Your task to perform on an android device: Go to display settings Image 0: 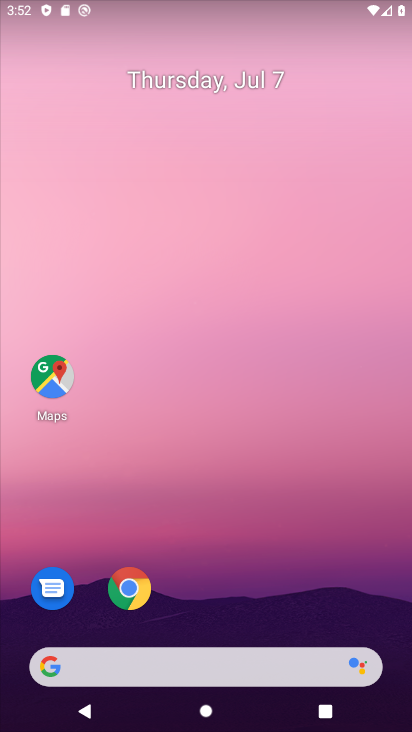
Step 0: drag from (270, 675) to (187, 101)
Your task to perform on an android device: Go to display settings Image 1: 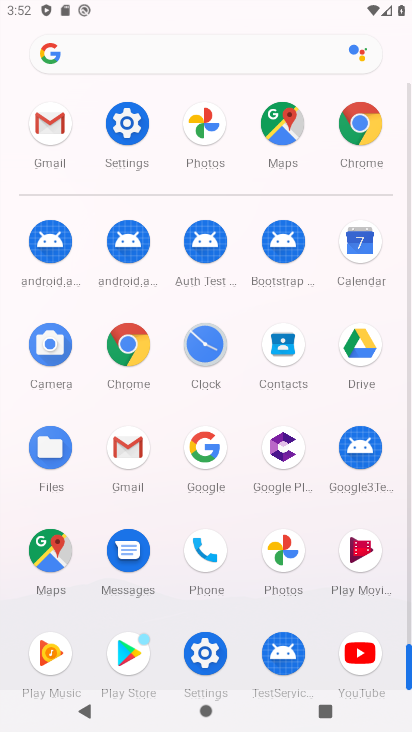
Step 1: click (193, 643)
Your task to perform on an android device: Go to display settings Image 2: 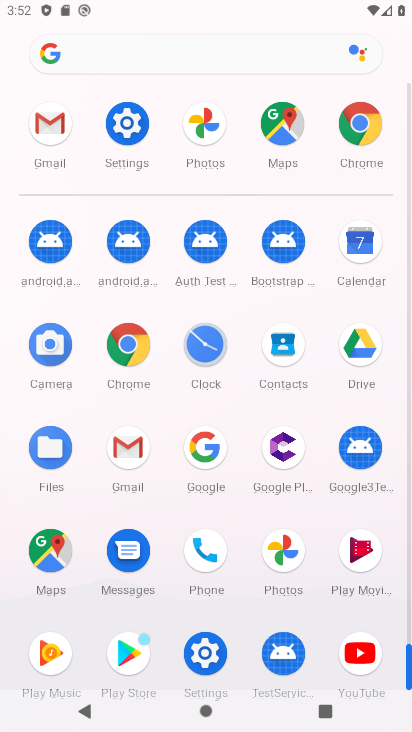
Step 2: click (196, 649)
Your task to perform on an android device: Go to display settings Image 3: 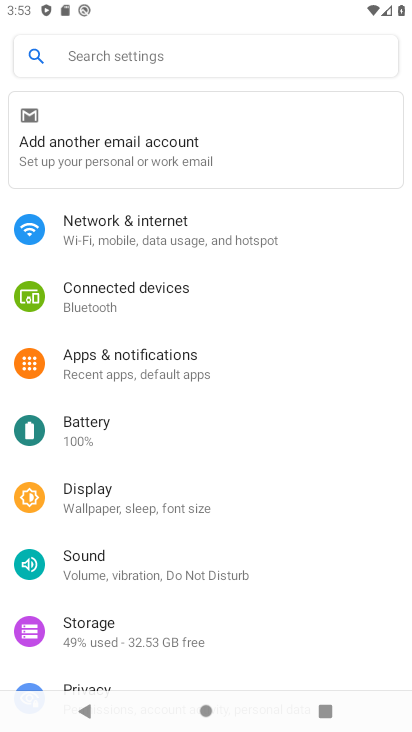
Step 3: click (95, 488)
Your task to perform on an android device: Go to display settings Image 4: 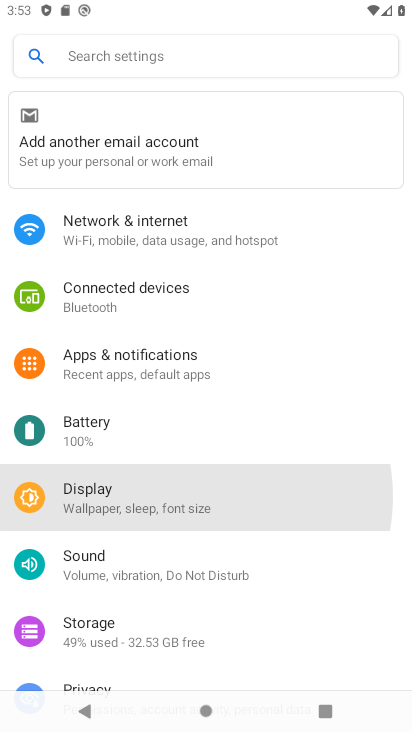
Step 4: click (95, 488)
Your task to perform on an android device: Go to display settings Image 5: 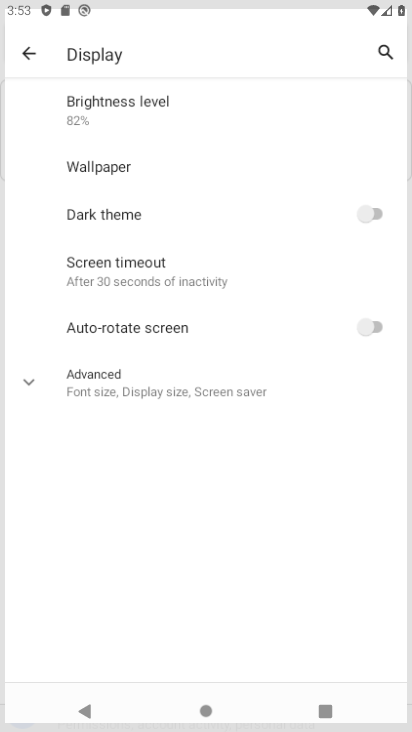
Step 5: click (96, 487)
Your task to perform on an android device: Go to display settings Image 6: 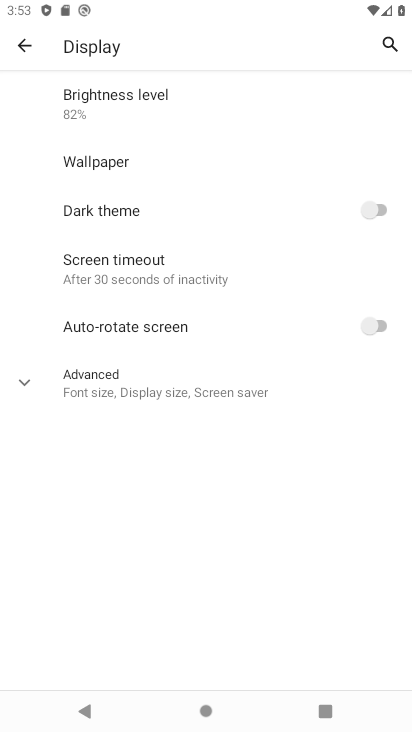
Step 6: task complete